Your task to perform on an android device: Show me popular games on the Play Store Image 0: 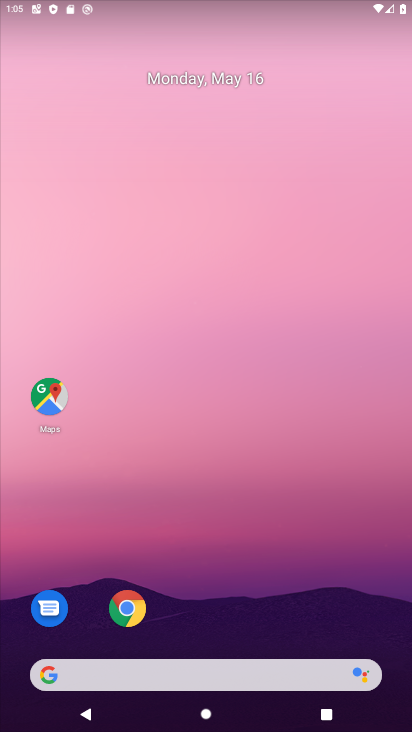
Step 0: drag from (162, 633) to (228, 243)
Your task to perform on an android device: Show me popular games on the Play Store Image 1: 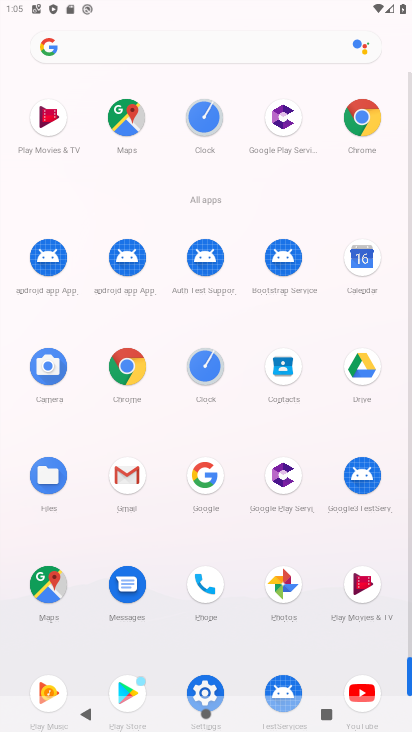
Step 1: click (125, 697)
Your task to perform on an android device: Show me popular games on the Play Store Image 2: 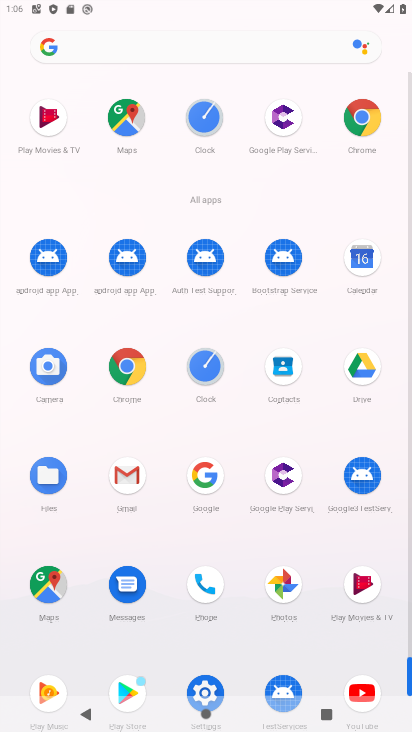
Step 2: click (131, 692)
Your task to perform on an android device: Show me popular games on the Play Store Image 3: 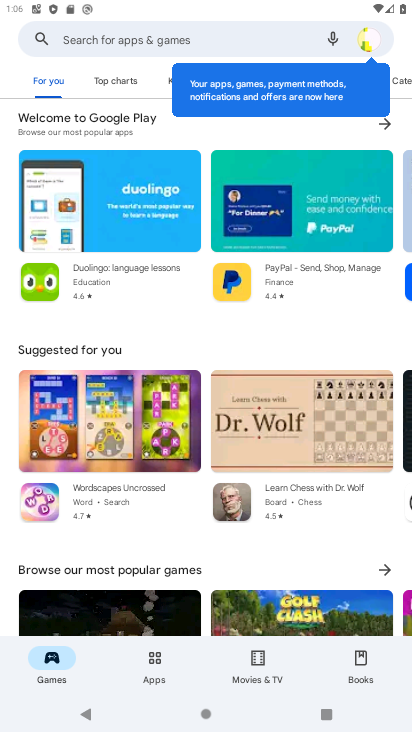
Step 3: drag from (169, 626) to (262, 348)
Your task to perform on an android device: Show me popular games on the Play Store Image 4: 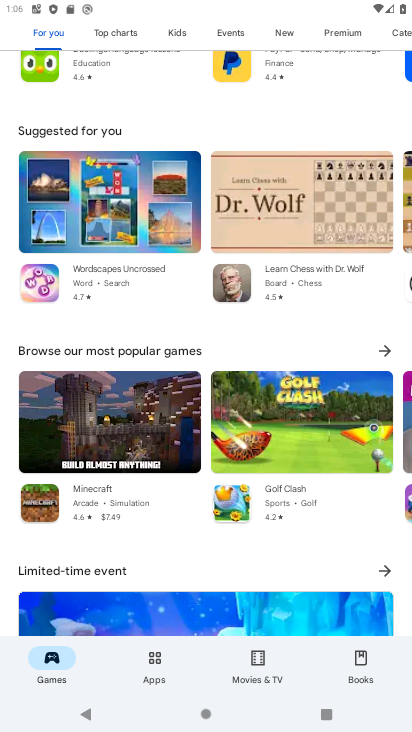
Step 4: click (385, 350)
Your task to perform on an android device: Show me popular games on the Play Store Image 5: 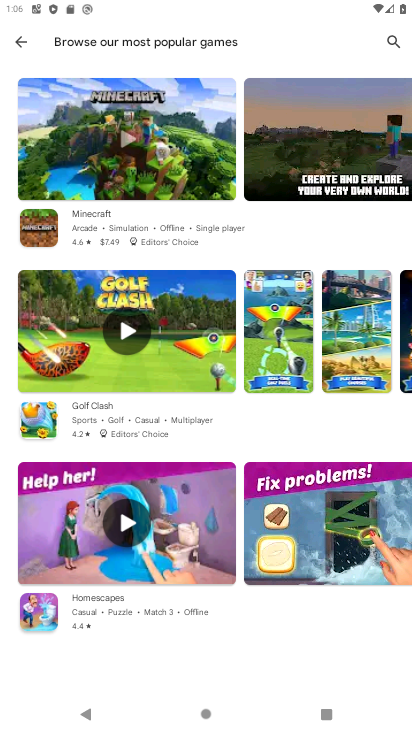
Step 5: task complete